Your task to perform on an android device: Open settings Image 0: 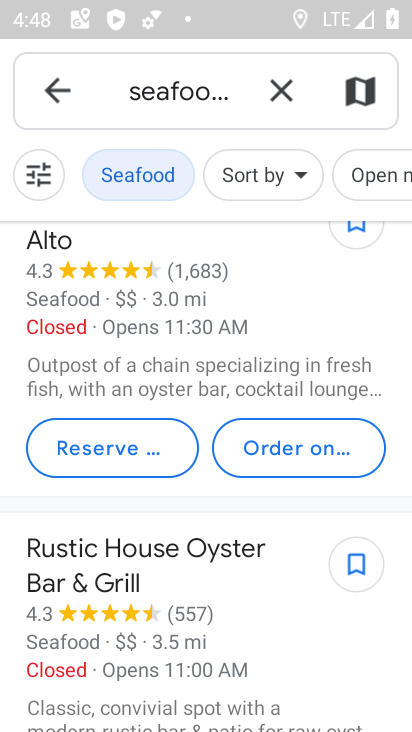
Step 0: press home button
Your task to perform on an android device: Open settings Image 1: 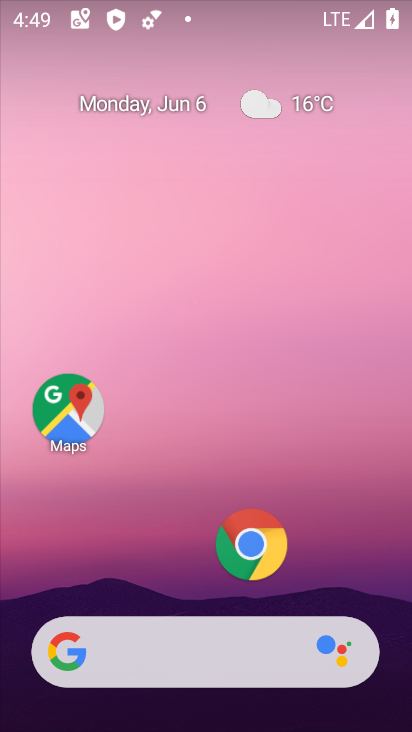
Step 1: drag from (198, 493) to (199, 201)
Your task to perform on an android device: Open settings Image 2: 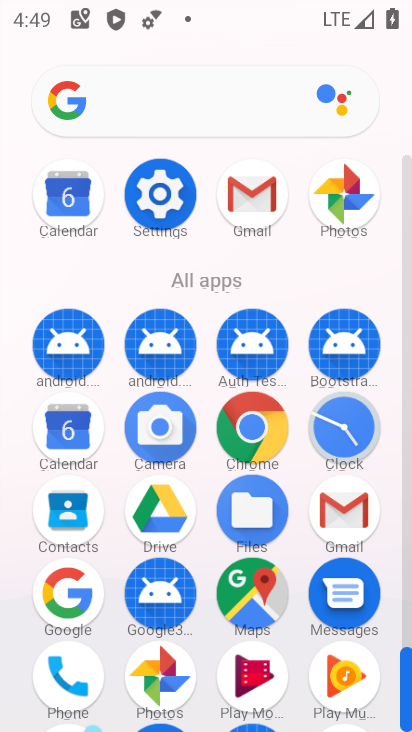
Step 2: click (163, 186)
Your task to perform on an android device: Open settings Image 3: 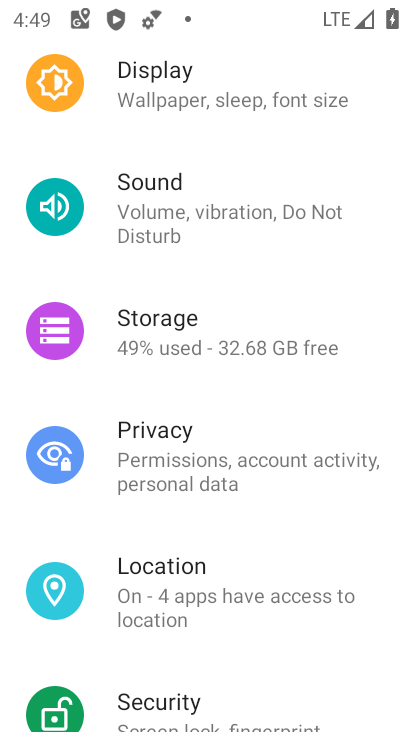
Step 3: task complete